Your task to perform on an android device: Open calendar and show me the fourth week of next month Image 0: 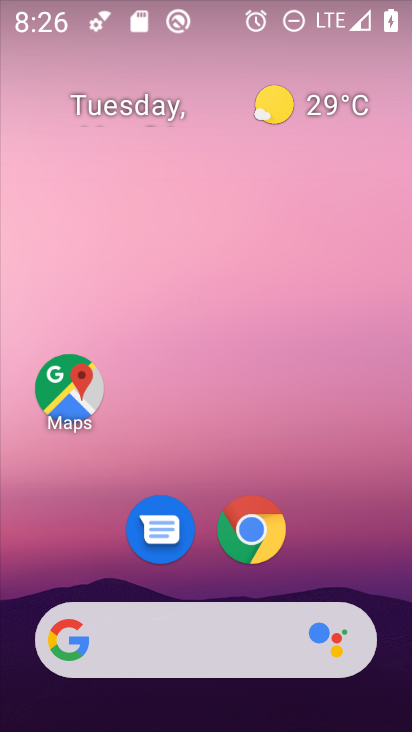
Step 0: drag from (387, 619) to (255, 75)
Your task to perform on an android device: Open calendar and show me the fourth week of next month Image 1: 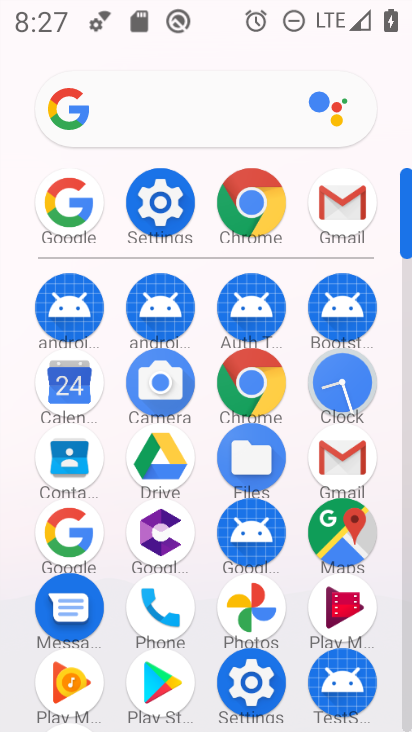
Step 1: click (65, 399)
Your task to perform on an android device: Open calendar and show me the fourth week of next month Image 2: 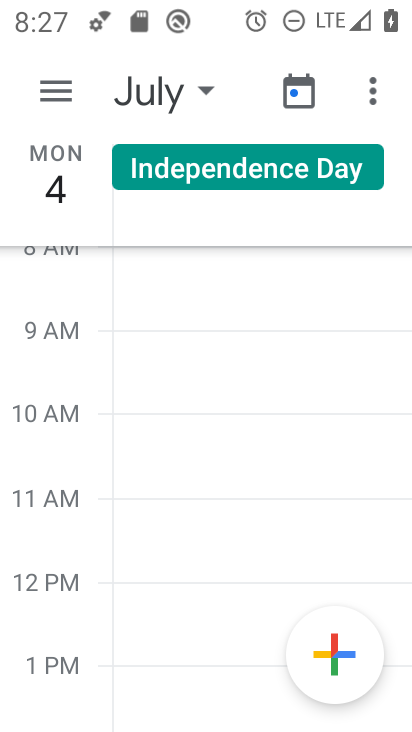
Step 2: click (163, 95)
Your task to perform on an android device: Open calendar and show me the fourth week of next month Image 3: 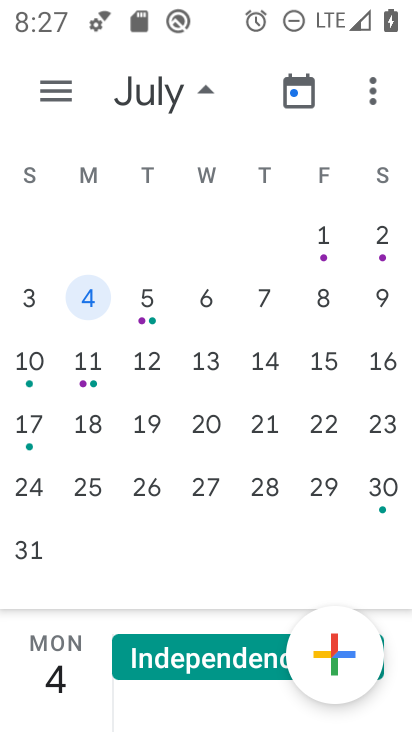
Step 3: drag from (368, 373) to (3, 398)
Your task to perform on an android device: Open calendar and show me the fourth week of next month Image 4: 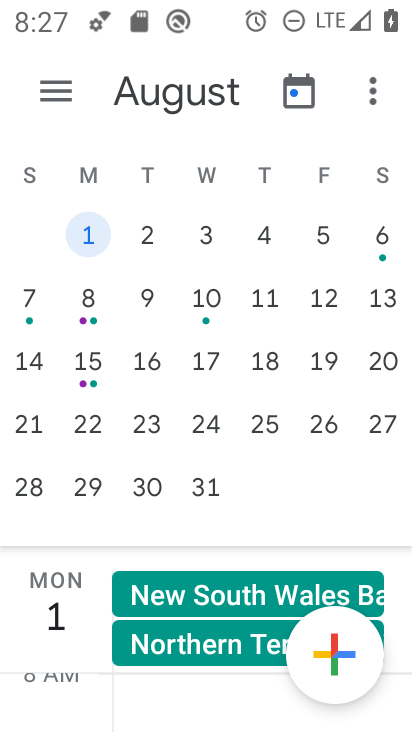
Step 4: click (204, 495)
Your task to perform on an android device: Open calendar and show me the fourth week of next month Image 5: 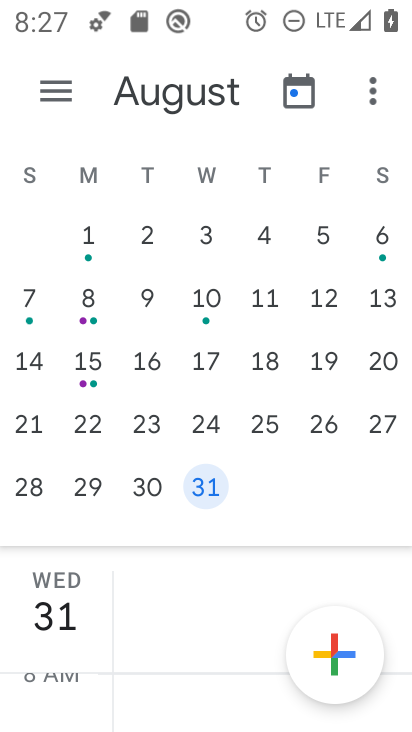
Step 5: task complete